Your task to perform on an android device: Find coffee shops on Maps Image 0: 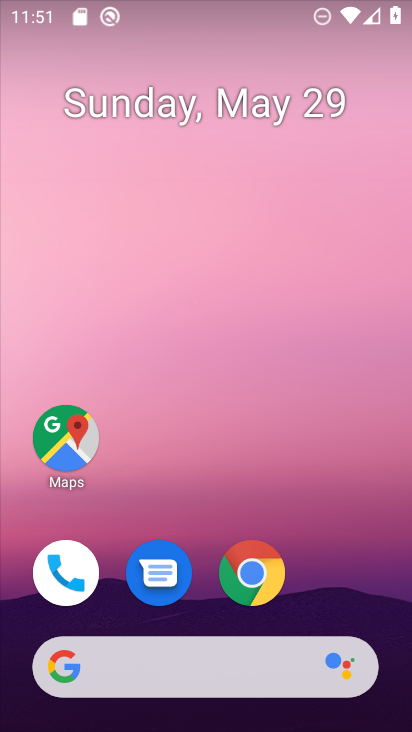
Step 0: click (70, 429)
Your task to perform on an android device: Find coffee shops on Maps Image 1: 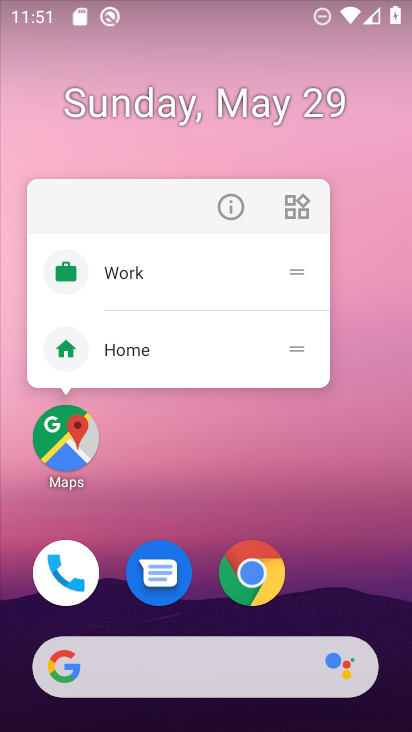
Step 1: click (71, 428)
Your task to perform on an android device: Find coffee shops on Maps Image 2: 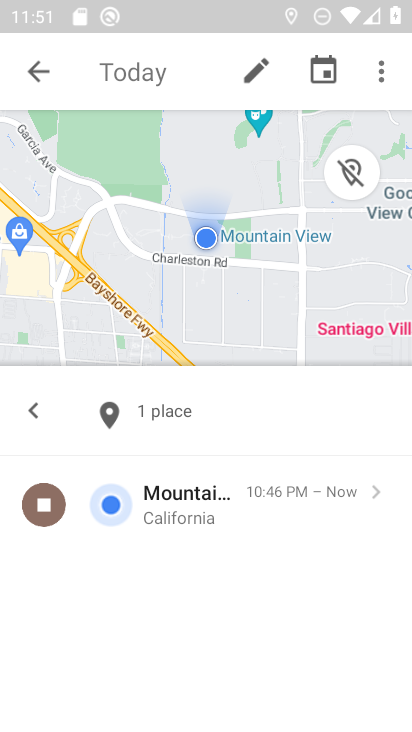
Step 2: type "coffee shops "
Your task to perform on an android device: Find coffee shops on Maps Image 3: 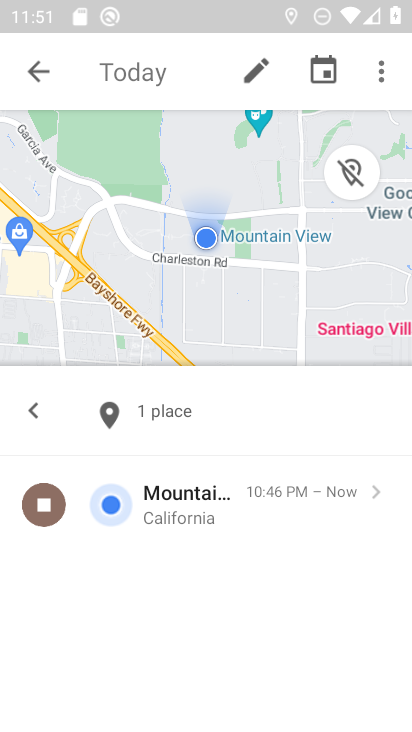
Step 3: click (168, 59)
Your task to perform on an android device: Find coffee shops on Maps Image 4: 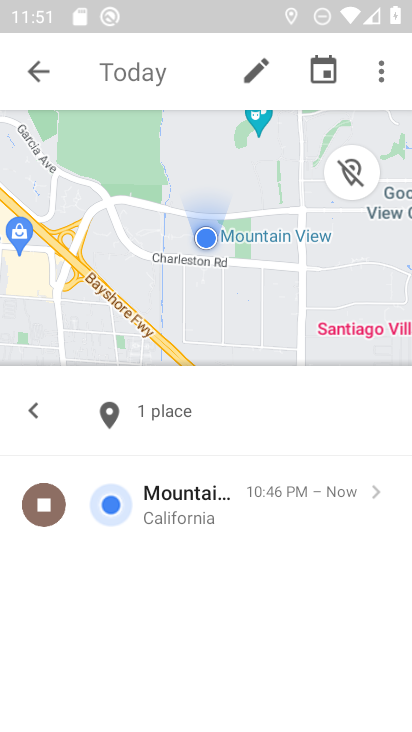
Step 4: click (159, 75)
Your task to perform on an android device: Find coffee shops on Maps Image 5: 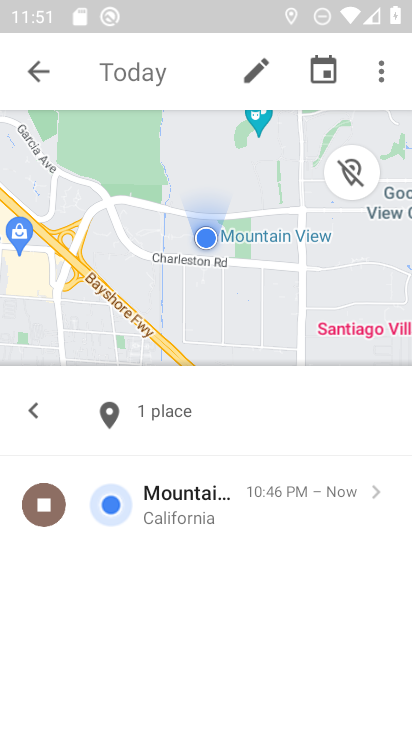
Step 5: click (171, 77)
Your task to perform on an android device: Find coffee shops on Maps Image 6: 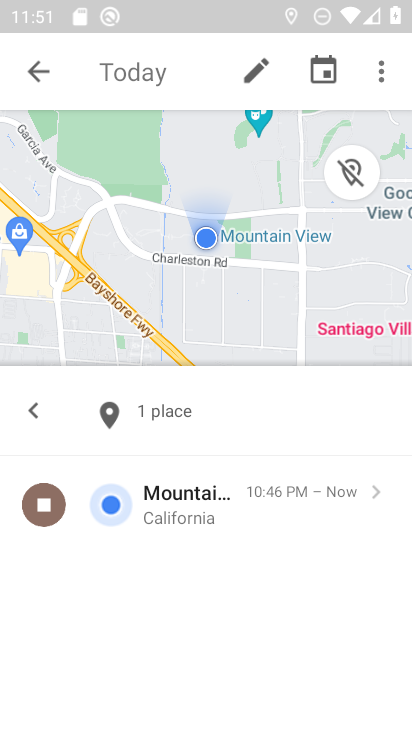
Step 6: click (151, 75)
Your task to perform on an android device: Find coffee shops on Maps Image 7: 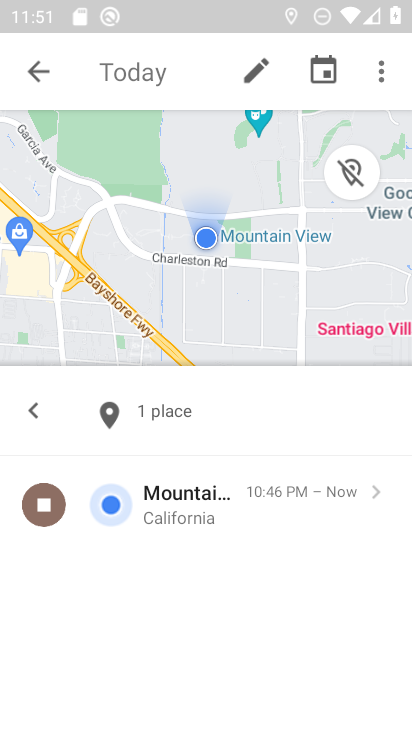
Step 7: click (151, 63)
Your task to perform on an android device: Find coffee shops on Maps Image 8: 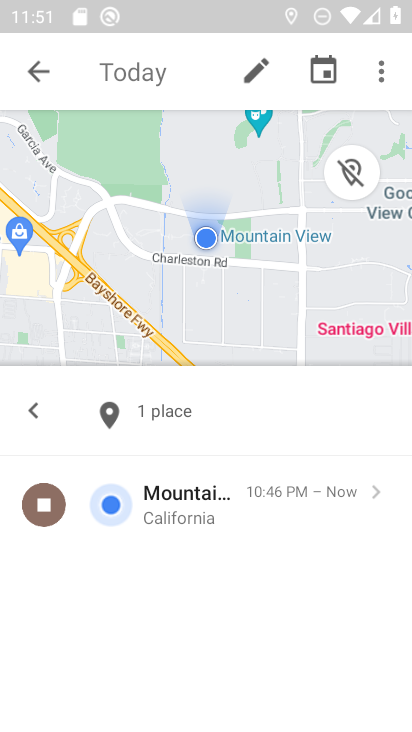
Step 8: click (144, 69)
Your task to perform on an android device: Find coffee shops on Maps Image 9: 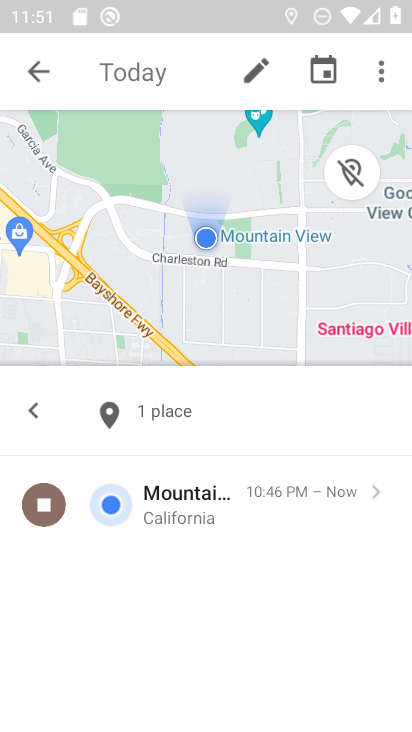
Step 9: press back button
Your task to perform on an android device: Find coffee shops on Maps Image 10: 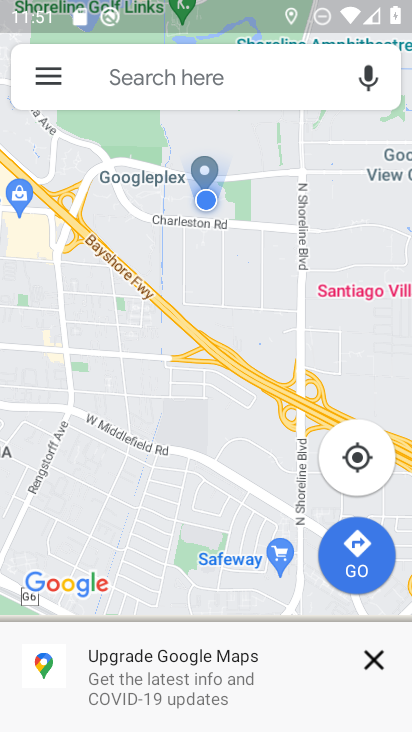
Step 10: click (216, 84)
Your task to perform on an android device: Find coffee shops on Maps Image 11: 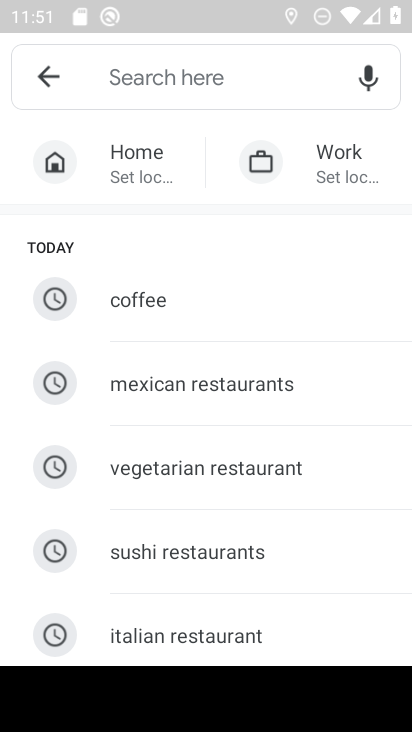
Step 11: click (205, 70)
Your task to perform on an android device: Find coffee shops on Maps Image 12: 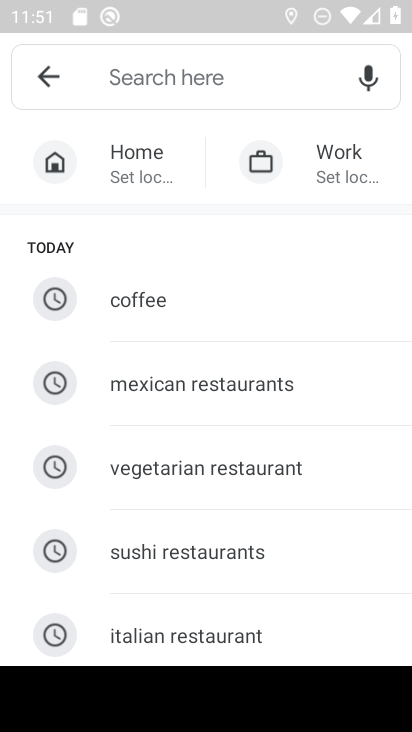
Step 12: type "coffee shops "
Your task to perform on an android device: Find coffee shops on Maps Image 13: 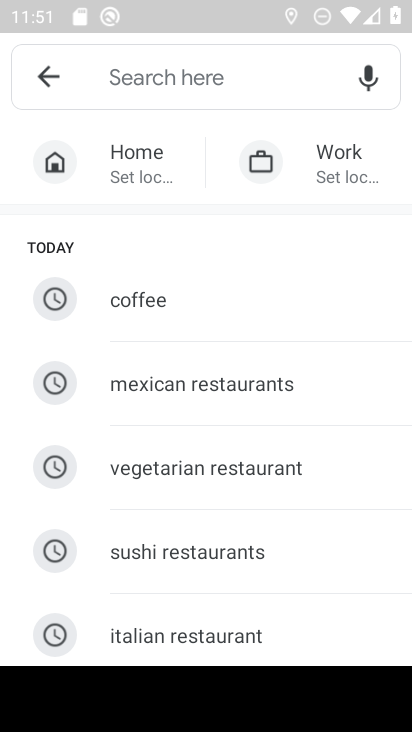
Step 13: click (169, 71)
Your task to perform on an android device: Find coffee shops on Maps Image 14: 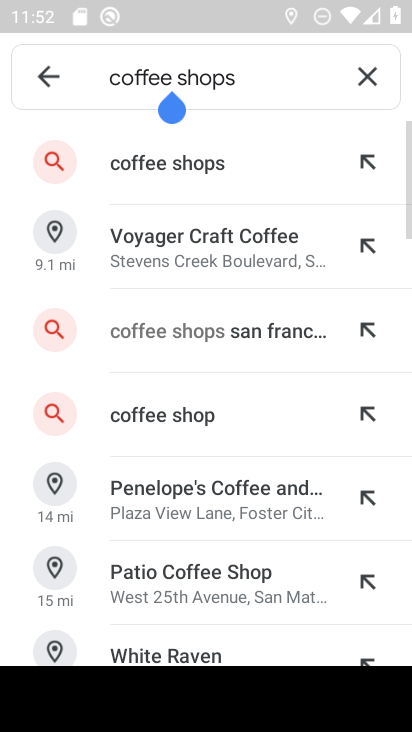
Step 14: click (164, 167)
Your task to perform on an android device: Find coffee shops on Maps Image 15: 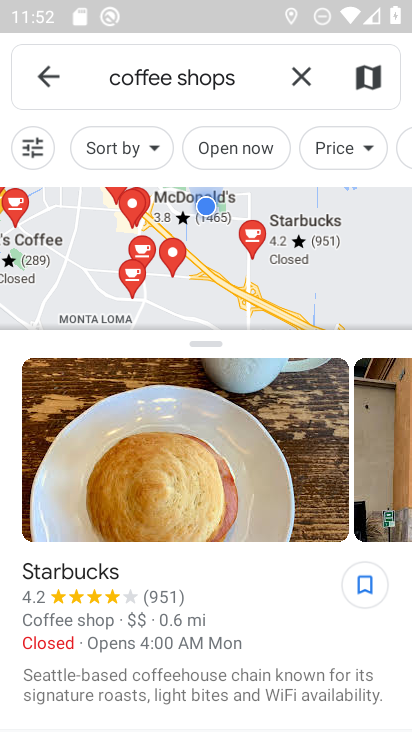
Step 15: task complete